Your task to perform on an android device: Open Google Chrome and click the shortcut for Amazon.com Image 0: 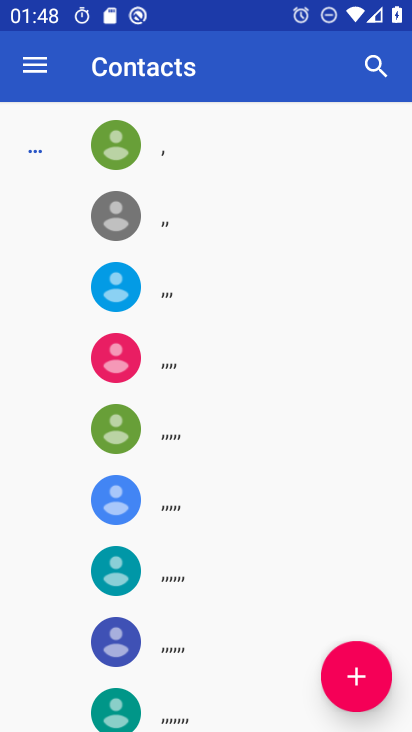
Step 0: press home button
Your task to perform on an android device: Open Google Chrome and click the shortcut for Amazon.com Image 1: 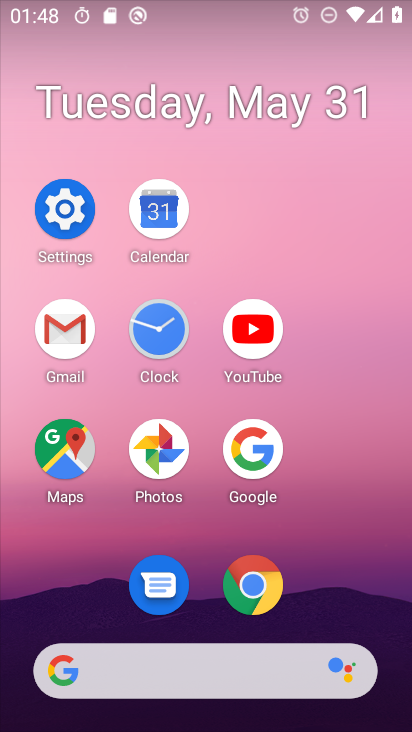
Step 1: click (270, 570)
Your task to perform on an android device: Open Google Chrome and click the shortcut for Amazon.com Image 2: 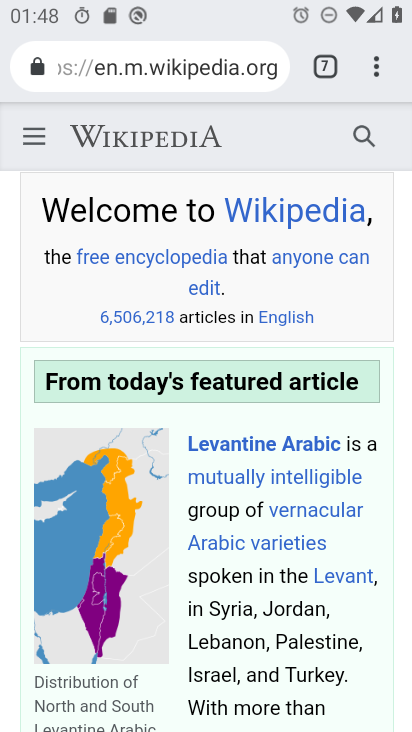
Step 2: click (385, 61)
Your task to perform on an android device: Open Google Chrome and click the shortcut for Amazon.com Image 3: 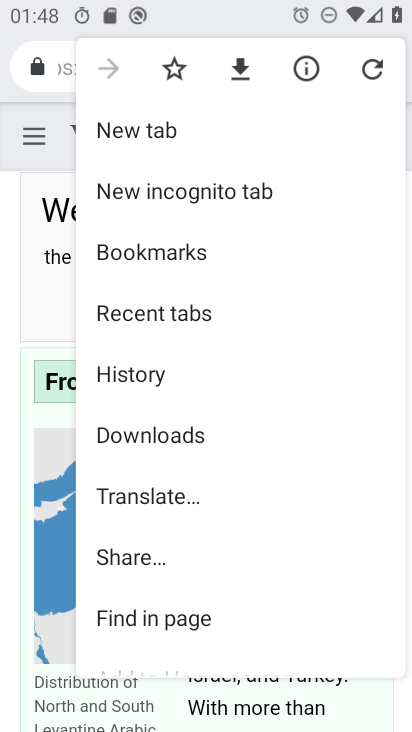
Step 3: click (33, 280)
Your task to perform on an android device: Open Google Chrome and click the shortcut for Amazon.com Image 4: 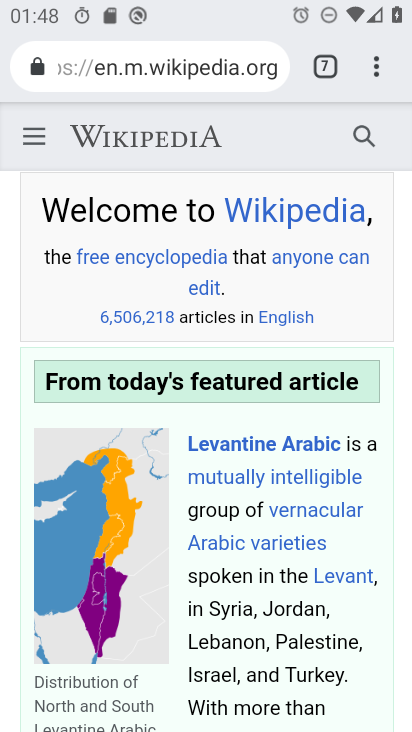
Step 4: click (339, 69)
Your task to perform on an android device: Open Google Chrome and click the shortcut for Amazon.com Image 5: 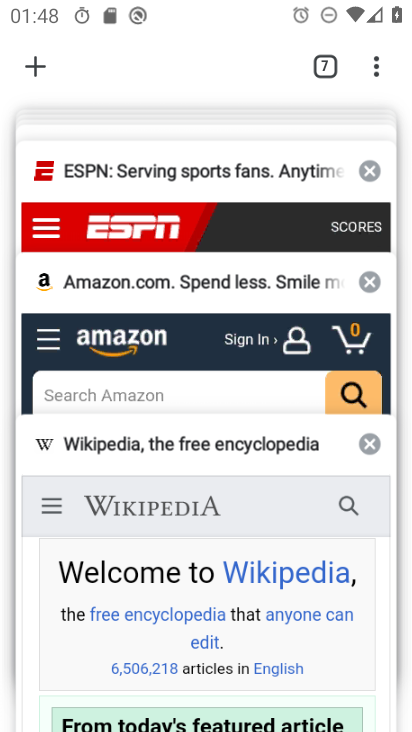
Step 5: click (181, 299)
Your task to perform on an android device: Open Google Chrome and click the shortcut for Amazon.com Image 6: 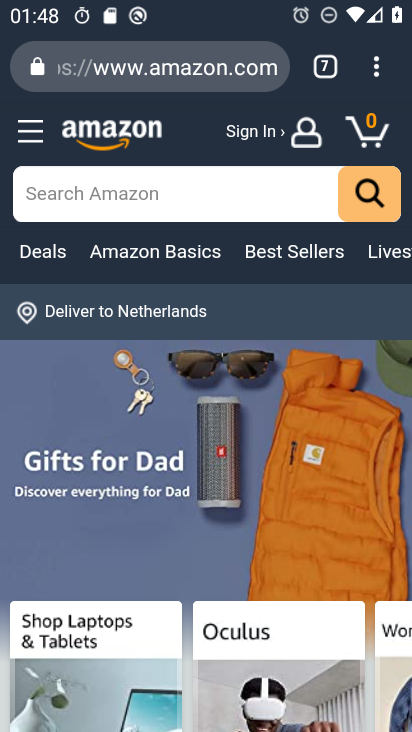
Step 6: click (375, 69)
Your task to perform on an android device: Open Google Chrome and click the shortcut for Amazon.com Image 7: 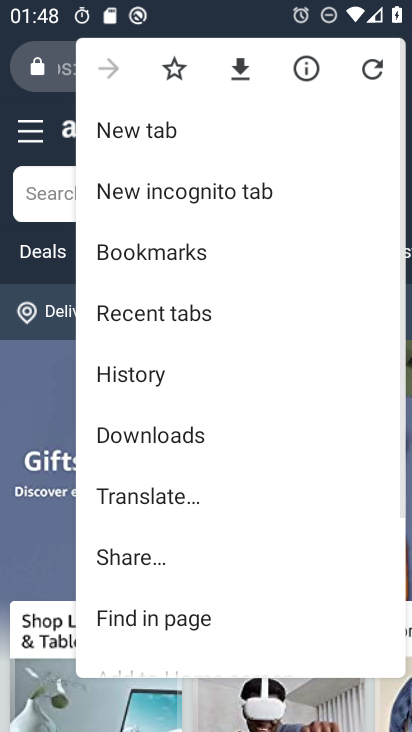
Step 7: drag from (194, 575) to (203, 204)
Your task to perform on an android device: Open Google Chrome and click the shortcut for Amazon.com Image 8: 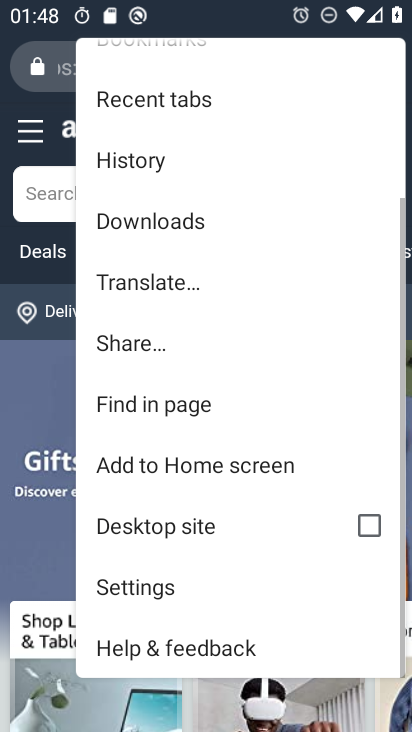
Step 8: click (233, 469)
Your task to perform on an android device: Open Google Chrome and click the shortcut for Amazon.com Image 9: 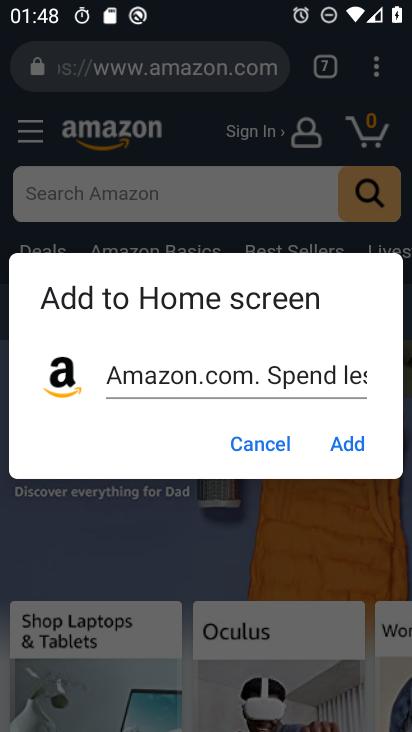
Step 9: click (340, 458)
Your task to perform on an android device: Open Google Chrome and click the shortcut for Amazon.com Image 10: 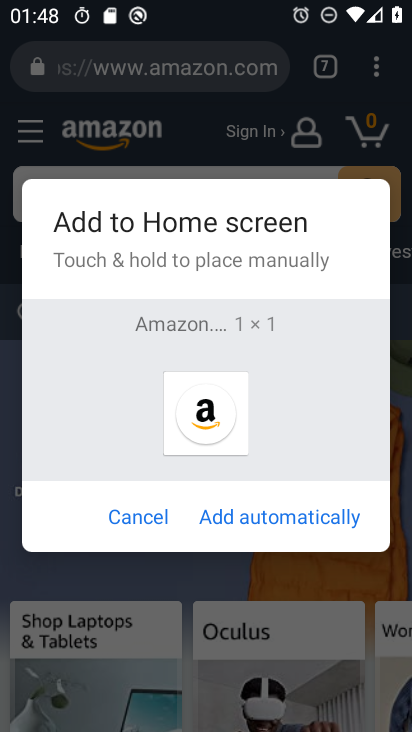
Step 10: click (321, 514)
Your task to perform on an android device: Open Google Chrome and click the shortcut for Amazon.com Image 11: 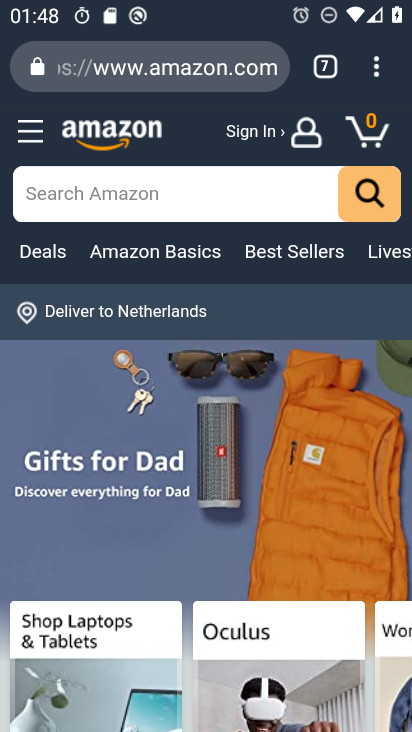
Step 11: task complete